Your task to perform on an android device: install app "Google Chat" Image 0: 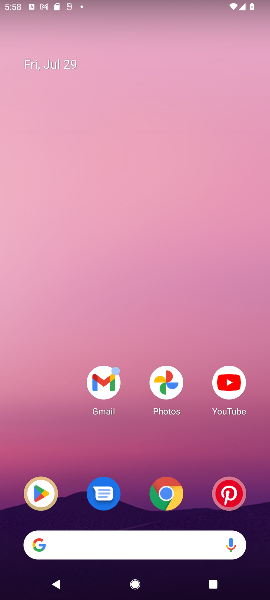
Step 0: drag from (167, 590) to (150, 200)
Your task to perform on an android device: install app "Google Chat" Image 1: 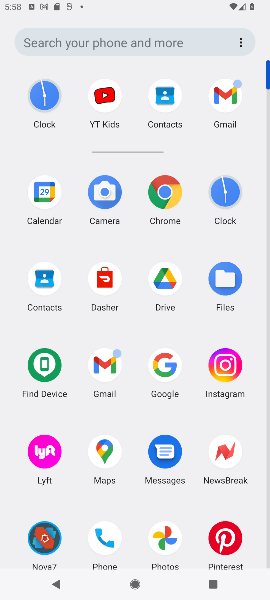
Step 1: drag from (128, 528) to (120, 257)
Your task to perform on an android device: install app "Google Chat" Image 2: 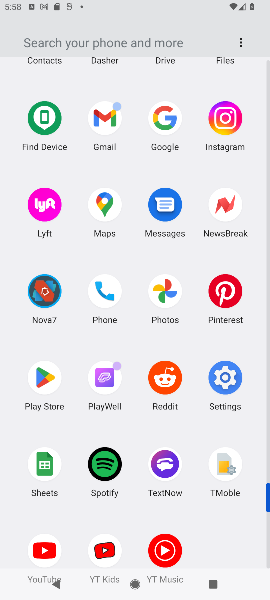
Step 2: click (41, 372)
Your task to perform on an android device: install app "Google Chat" Image 3: 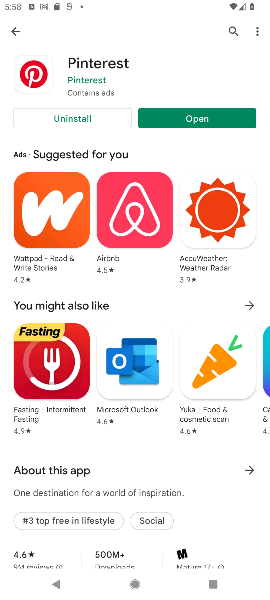
Step 3: click (233, 28)
Your task to perform on an android device: install app "Google Chat" Image 4: 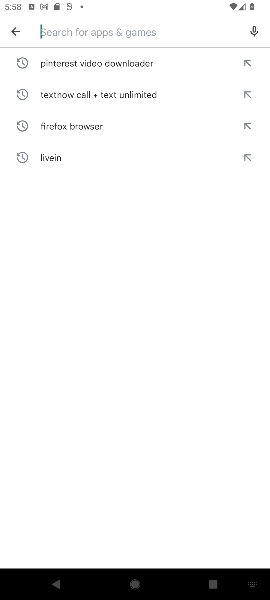
Step 4: type "Google Chat"
Your task to perform on an android device: install app "Google Chat" Image 5: 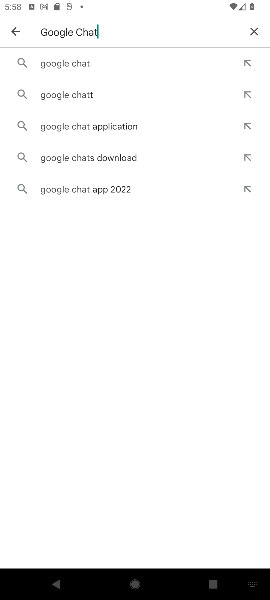
Step 5: click (74, 59)
Your task to perform on an android device: install app "Google Chat" Image 6: 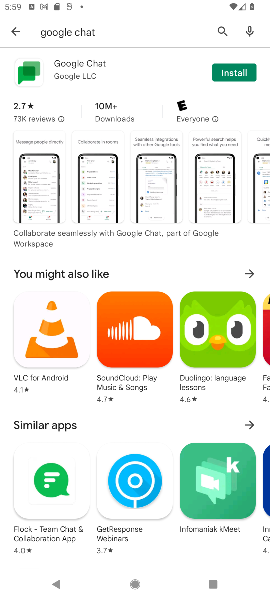
Step 6: click (238, 78)
Your task to perform on an android device: install app "Google Chat" Image 7: 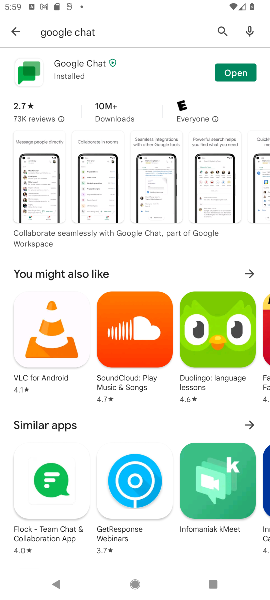
Step 7: task complete